Your task to perform on an android device: Open Youtube and go to the subscriptions tab Image 0: 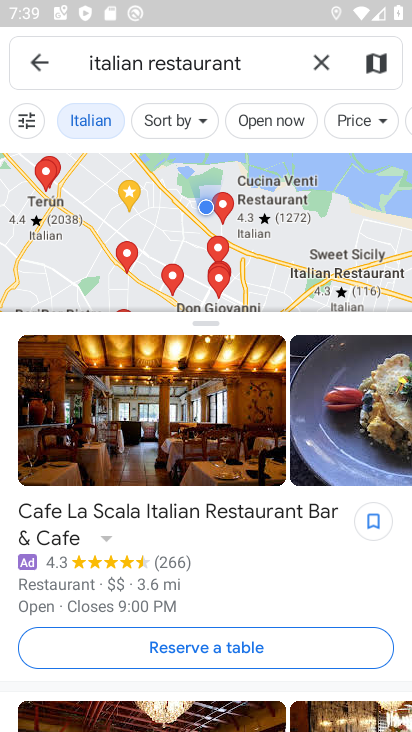
Step 0: press home button
Your task to perform on an android device: Open Youtube and go to the subscriptions tab Image 1: 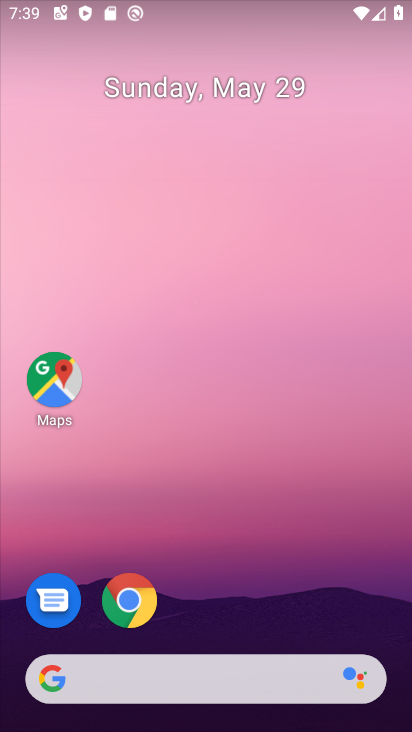
Step 1: drag from (196, 604) to (126, 0)
Your task to perform on an android device: Open Youtube and go to the subscriptions tab Image 2: 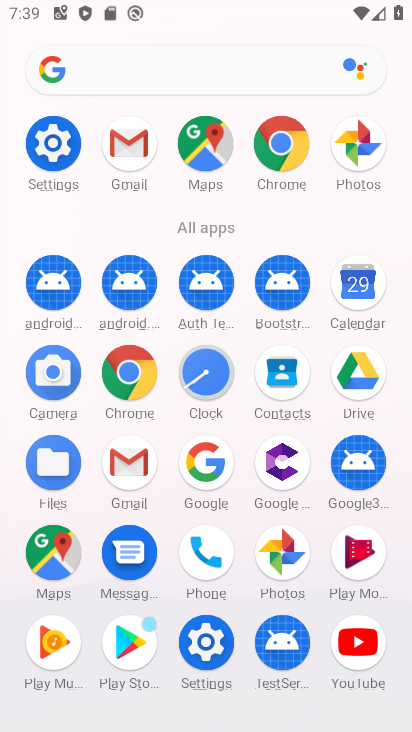
Step 2: click (374, 671)
Your task to perform on an android device: Open Youtube and go to the subscriptions tab Image 3: 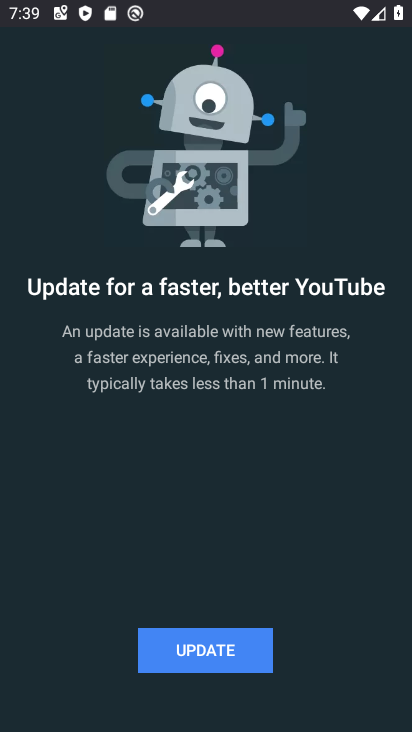
Step 3: click (233, 666)
Your task to perform on an android device: Open Youtube and go to the subscriptions tab Image 4: 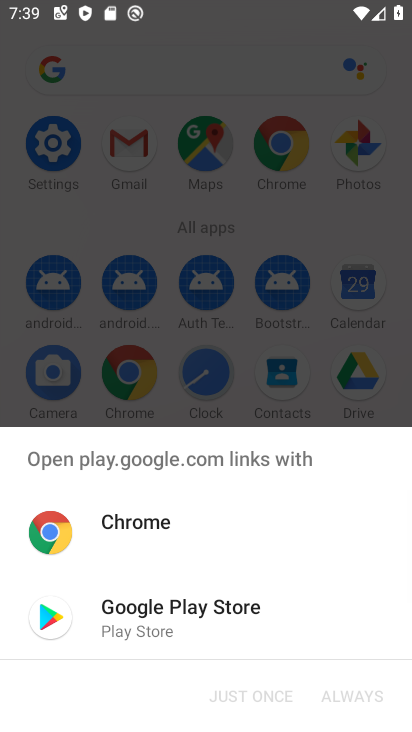
Step 4: click (170, 624)
Your task to perform on an android device: Open Youtube and go to the subscriptions tab Image 5: 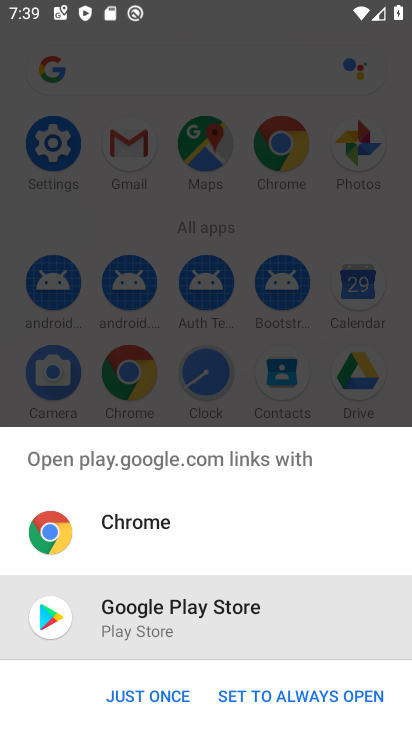
Step 5: click (146, 698)
Your task to perform on an android device: Open Youtube and go to the subscriptions tab Image 6: 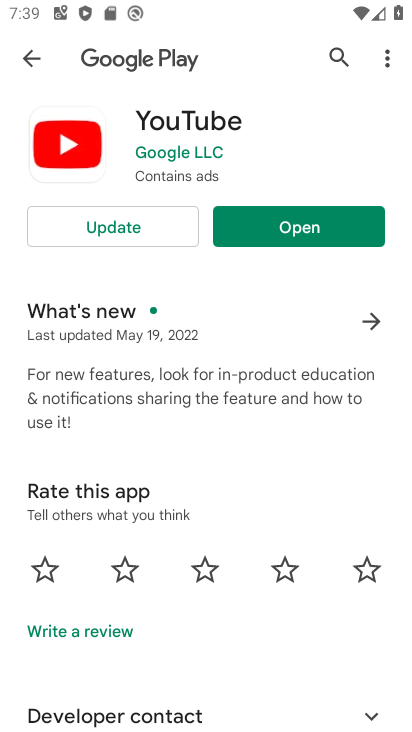
Step 6: click (145, 230)
Your task to perform on an android device: Open Youtube and go to the subscriptions tab Image 7: 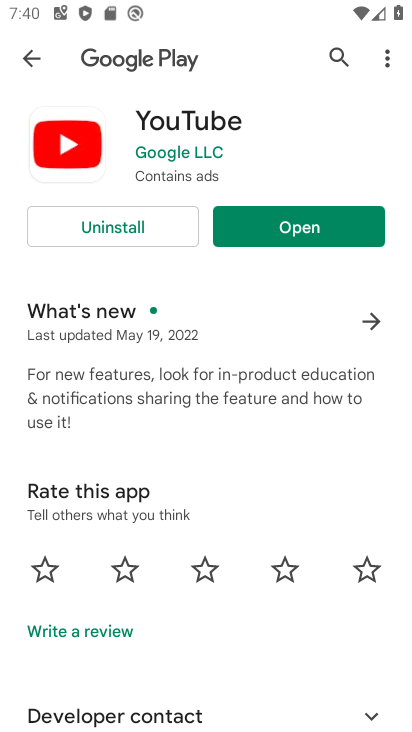
Step 7: click (308, 236)
Your task to perform on an android device: Open Youtube and go to the subscriptions tab Image 8: 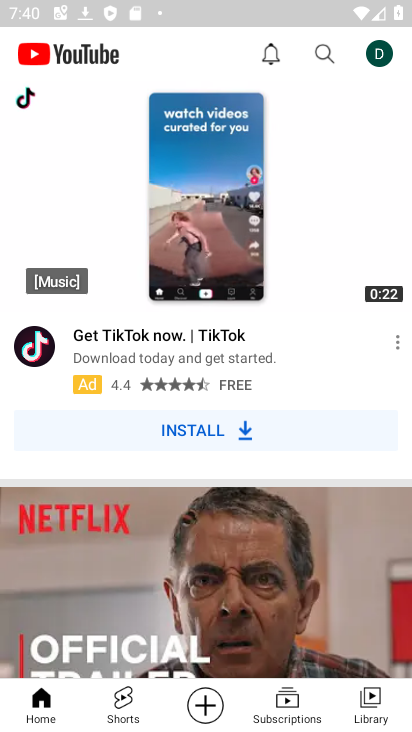
Step 8: click (294, 704)
Your task to perform on an android device: Open Youtube and go to the subscriptions tab Image 9: 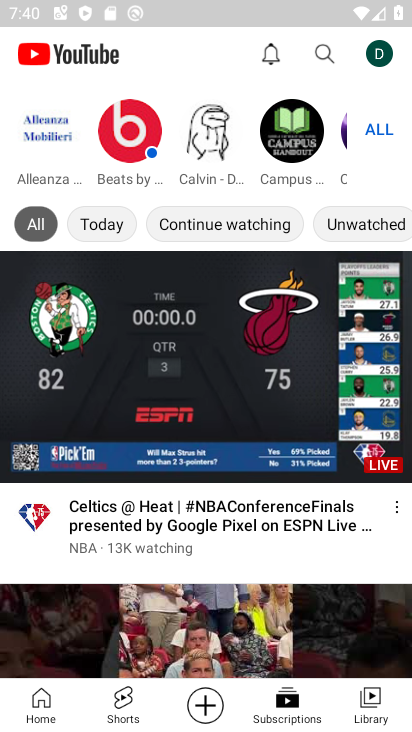
Step 9: task complete